Your task to perform on an android device: Search for pizza restaurants on Maps Image 0: 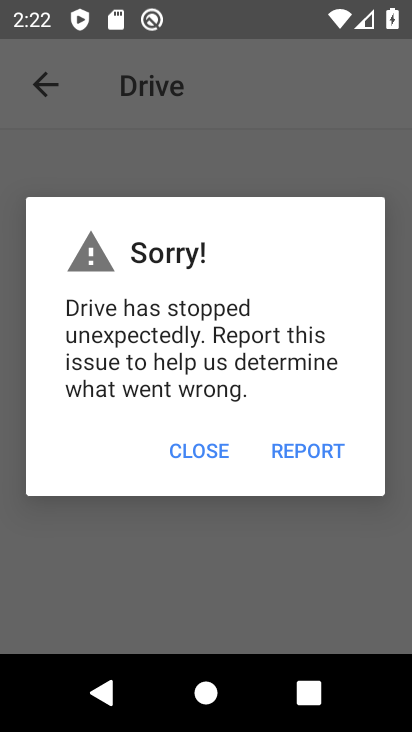
Step 0: press home button
Your task to perform on an android device: Search for pizza restaurants on Maps Image 1: 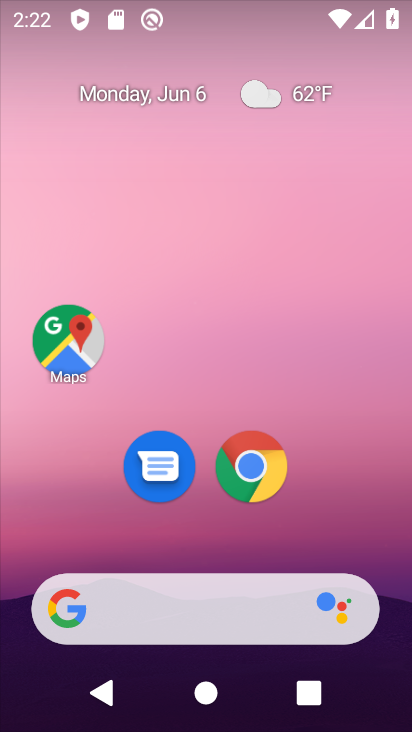
Step 1: click (79, 344)
Your task to perform on an android device: Search for pizza restaurants on Maps Image 2: 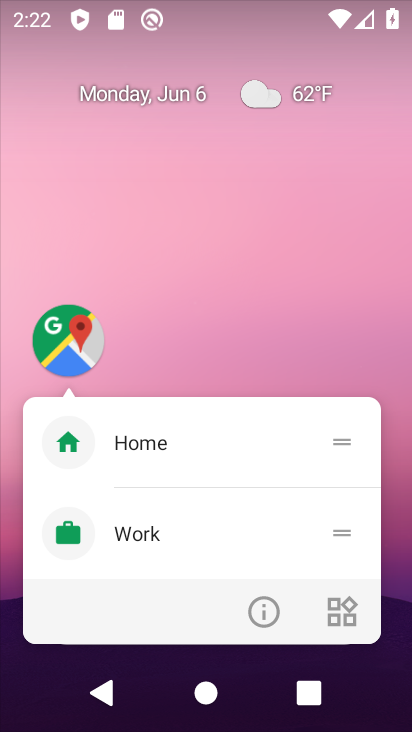
Step 2: click (85, 330)
Your task to perform on an android device: Search for pizza restaurants on Maps Image 3: 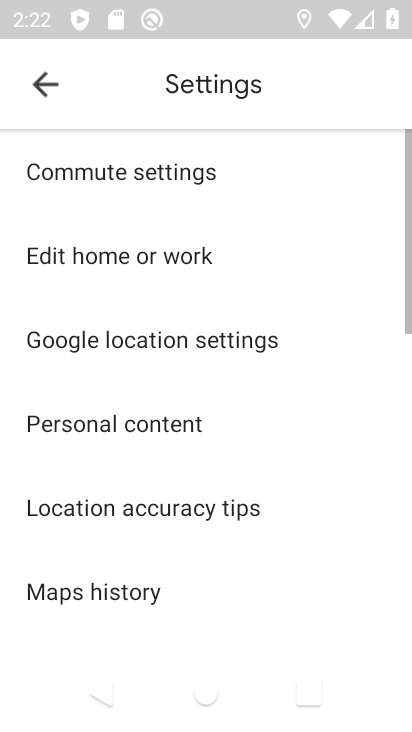
Step 3: click (40, 95)
Your task to perform on an android device: Search for pizza restaurants on Maps Image 4: 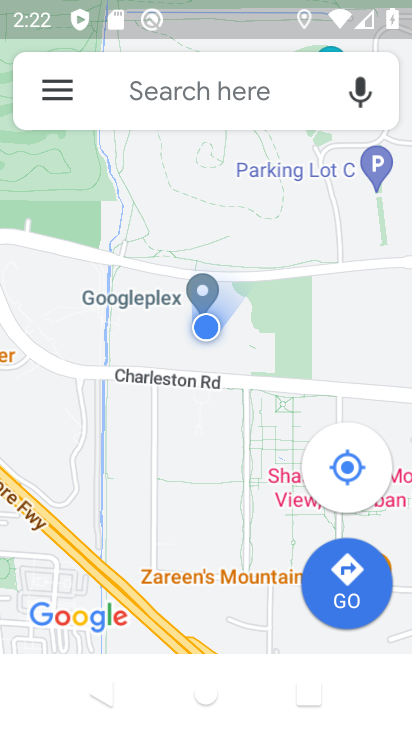
Step 4: click (240, 72)
Your task to perform on an android device: Search for pizza restaurants on Maps Image 5: 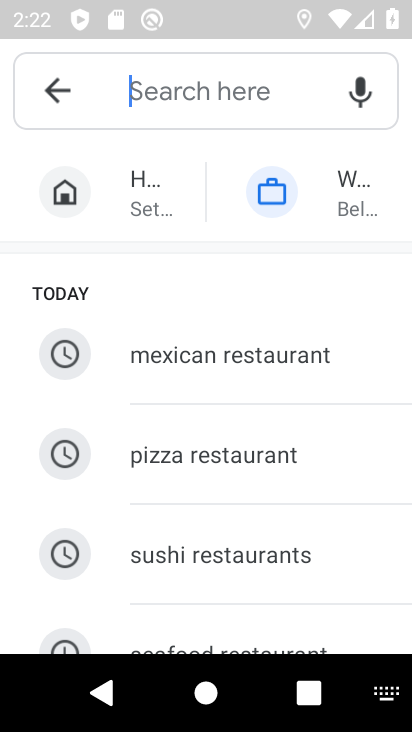
Step 5: click (276, 452)
Your task to perform on an android device: Search for pizza restaurants on Maps Image 6: 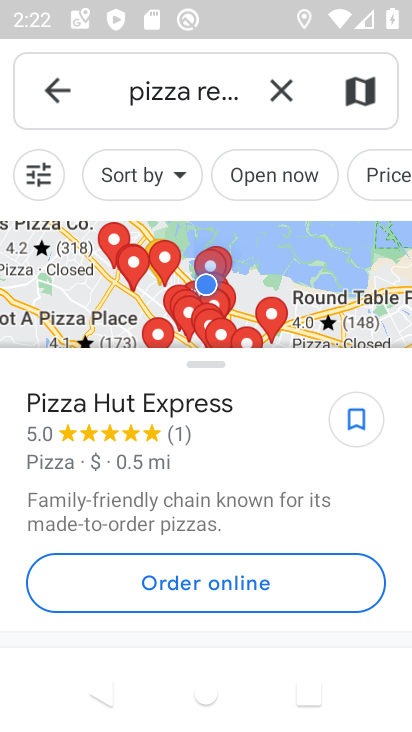
Step 6: task complete